Your task to perform on an android device: turn pop-ups off in chrome Image 0: 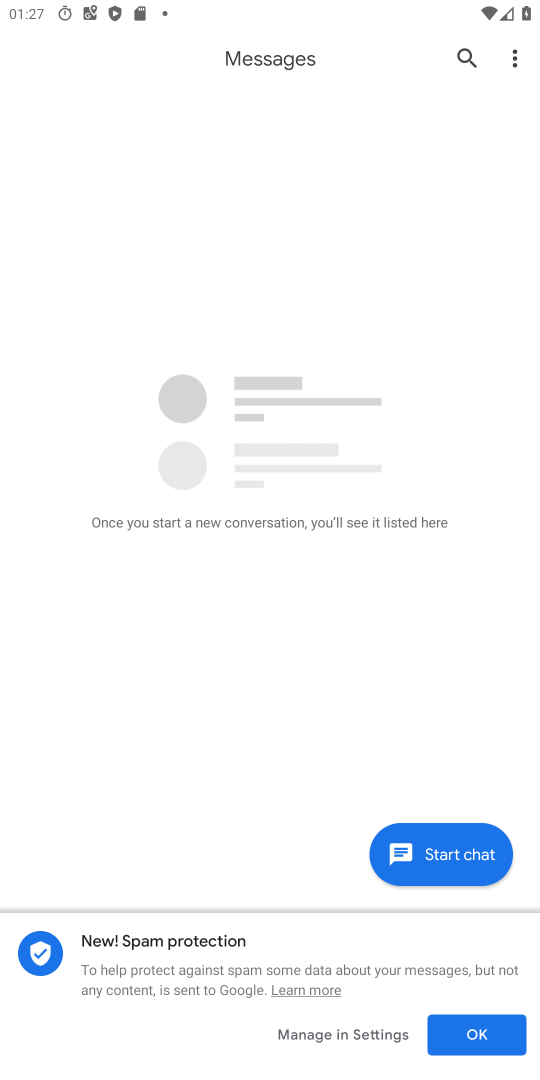
Step 0: press home button
Your task to perform on an android device: turn pop-ups off in chrome Image 1: 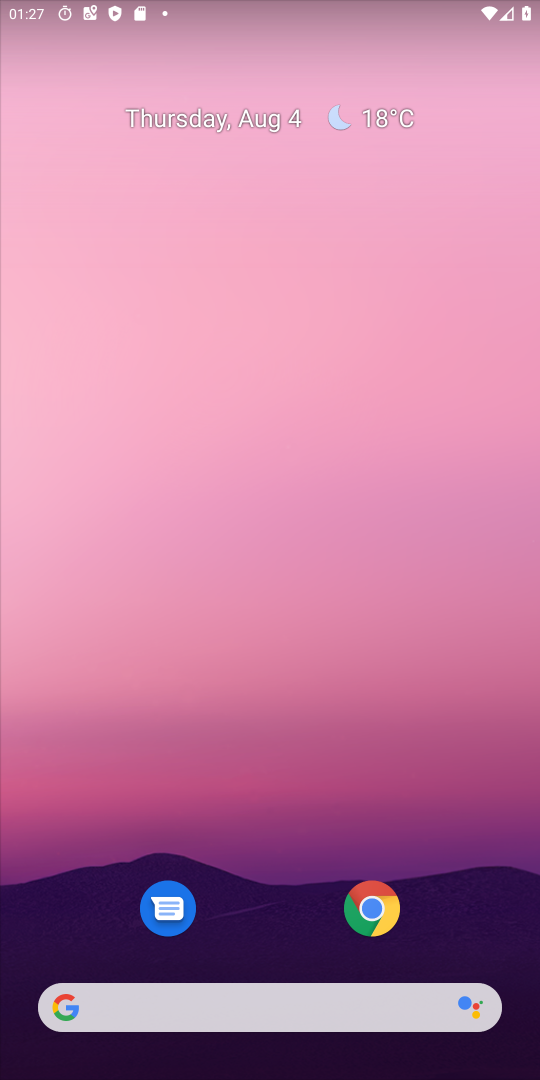
Step 1: drag from (348, 944) to (316, 111)
Your task to perform on an android device: turn pop-ups off in chrome Image 2: 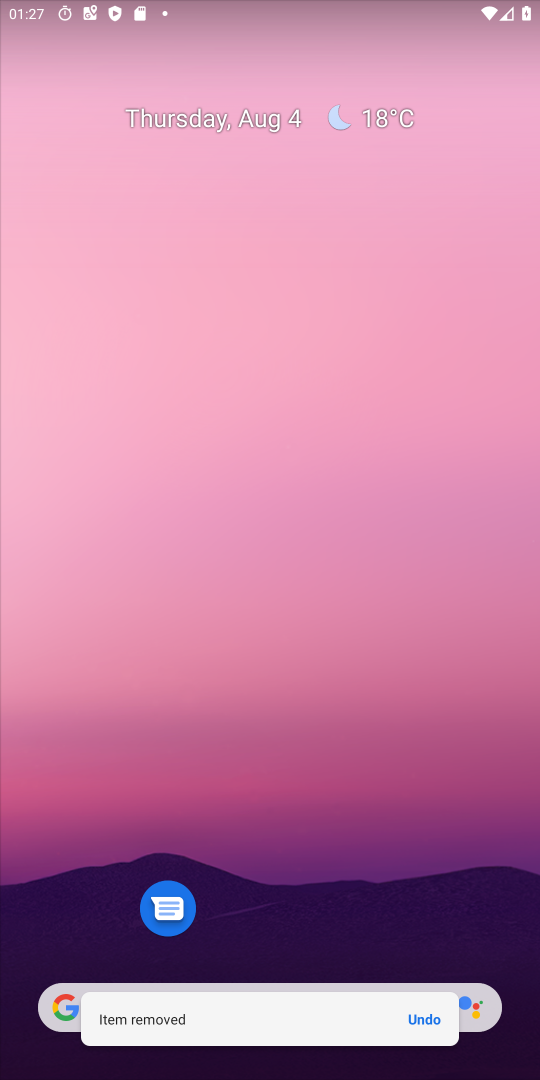
Step 2: click (425, 1019)
Your task to perform on an android device: turn pop-ups off in chrome Image 3: 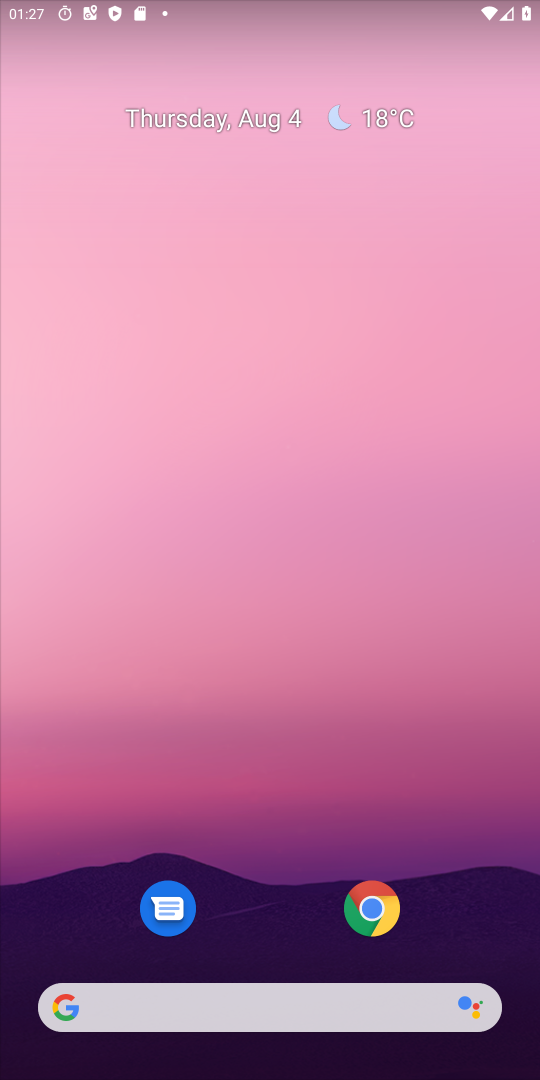
Step 3: click (252, 763)
Your task to perform on an android device: turn pop-ups off in chrome Image 4: 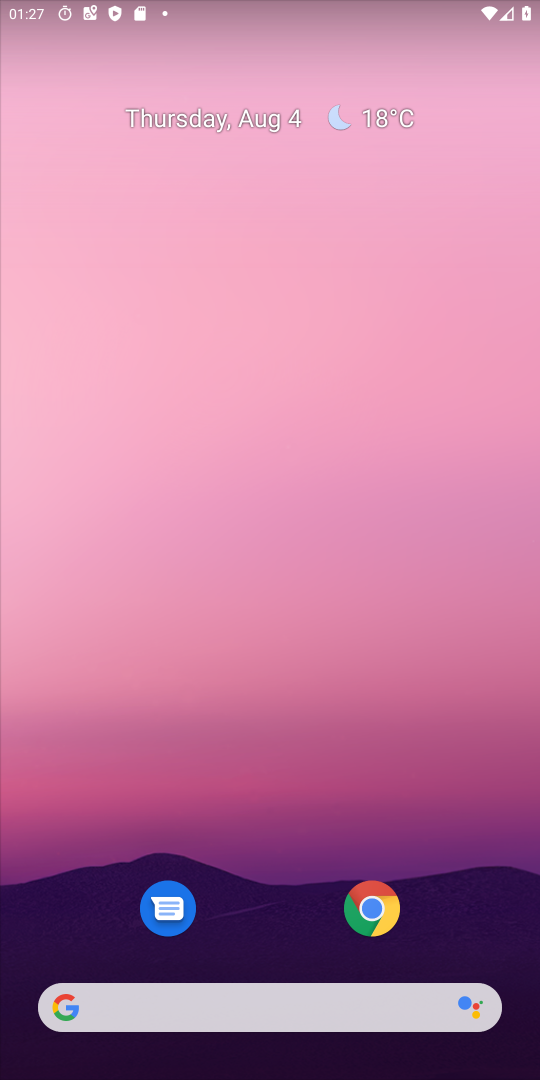
Step 4: drag from (246, 984) to (297, 202)
Your task to perform on an android device: turn pop-ups off in chrome Image 5: 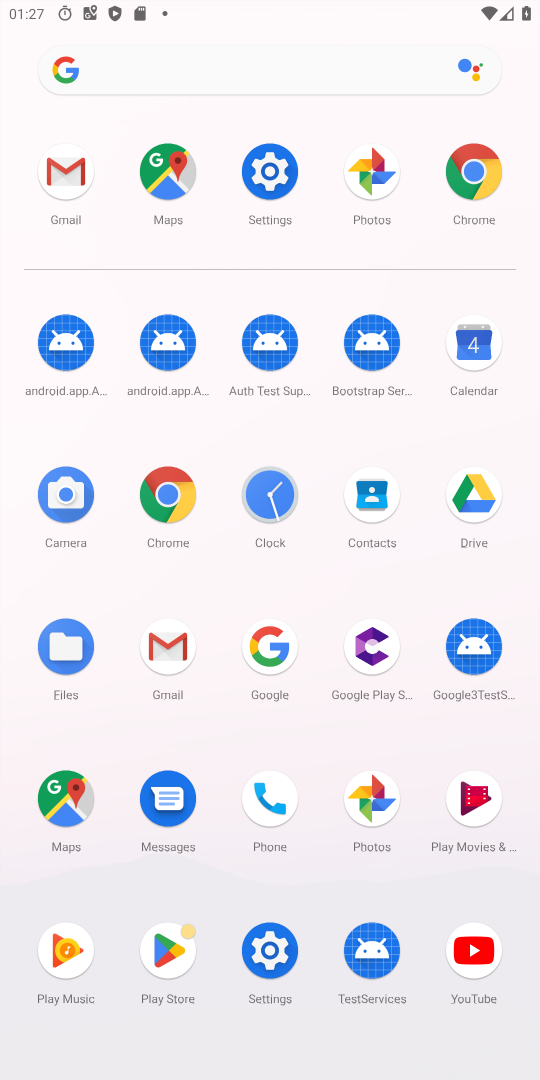
Step 5: click (458, 184)
Your task to perform on an android device: turn pop-ups off in chrome Image 6: 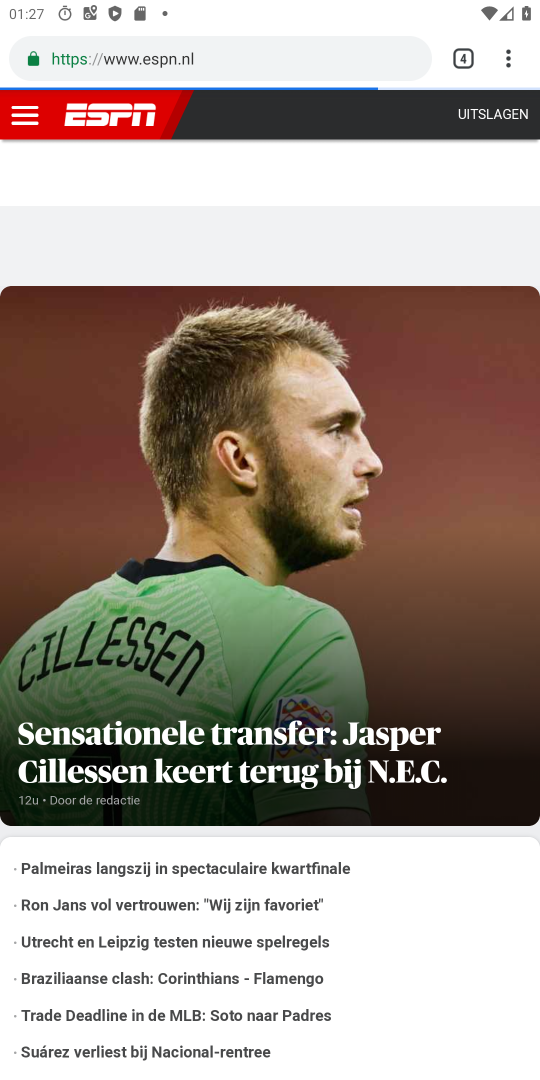
Step 6: click (508, 65)
Your task to perform on an android device: turn pop-ups off in chrome Image 7: 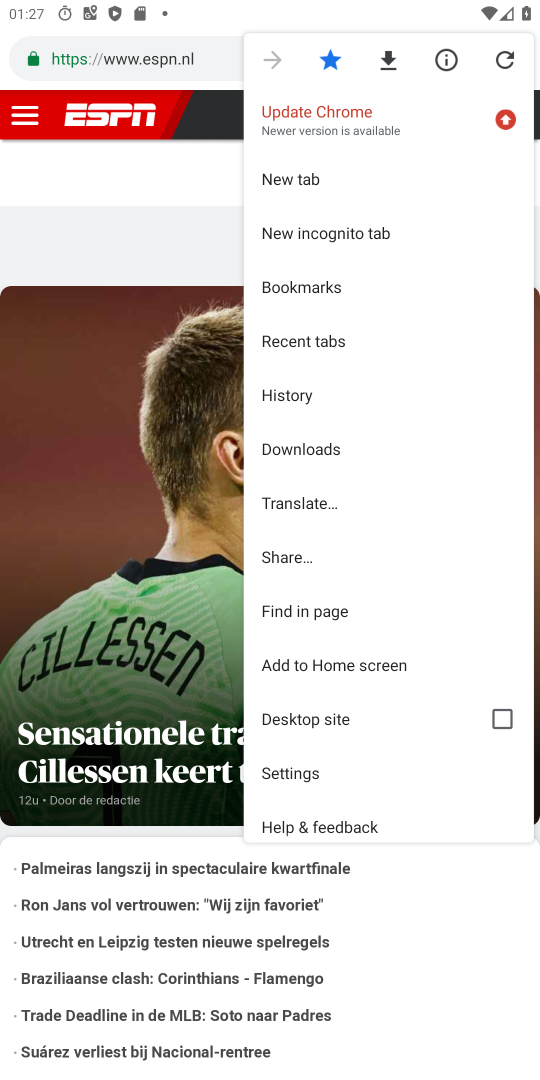
Step 7: click (280, 767)
Your task to perform on an android device: turn pop-ups off in chrome Image 8: 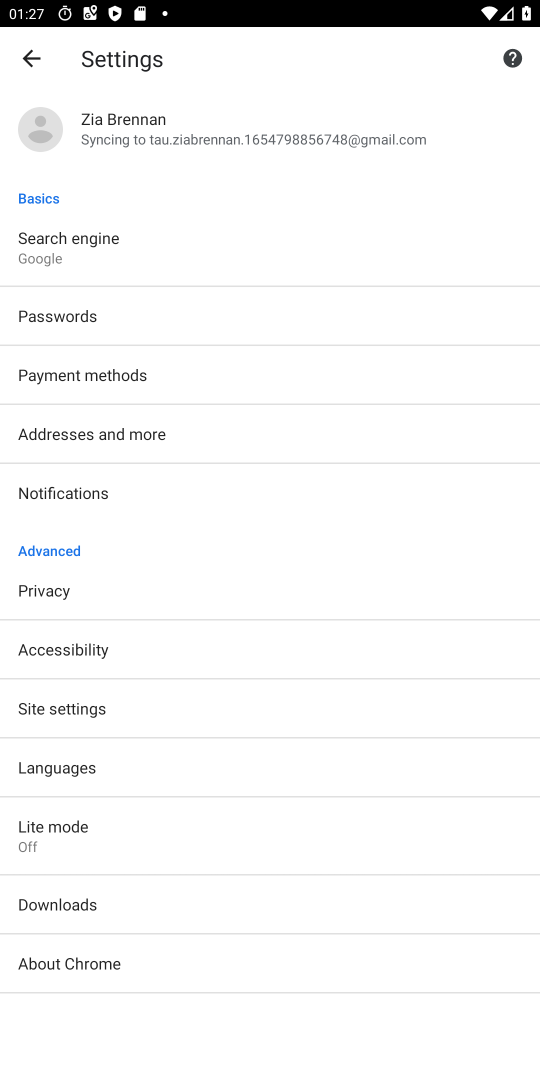
Step 8: click (93, 717)
Your task to perform on an android device: turn pop-ups off in chrome Image 9: 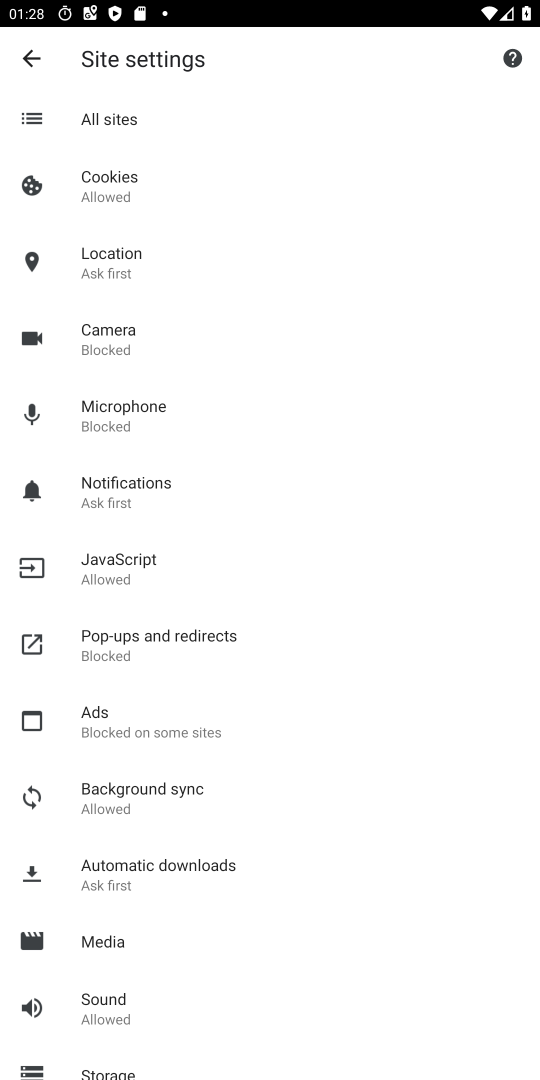
Step 9: click (149, 641)
Your task to perform on an android device: turn pop-ups off in chrome Image 10: 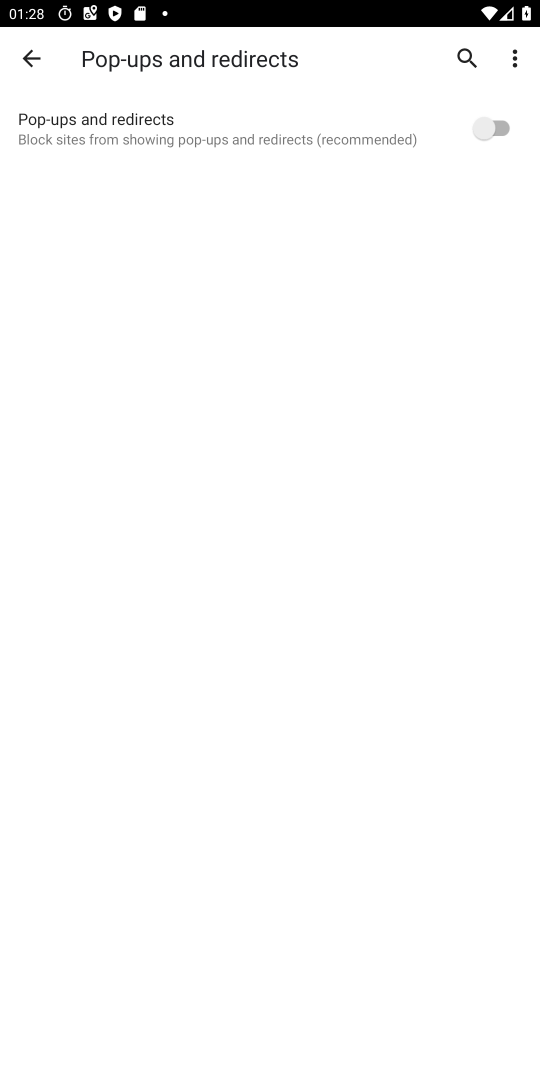
Step 10: click (473, 154)
Your task to perform on an android device: turn pop-ups off in chrome Image 11: 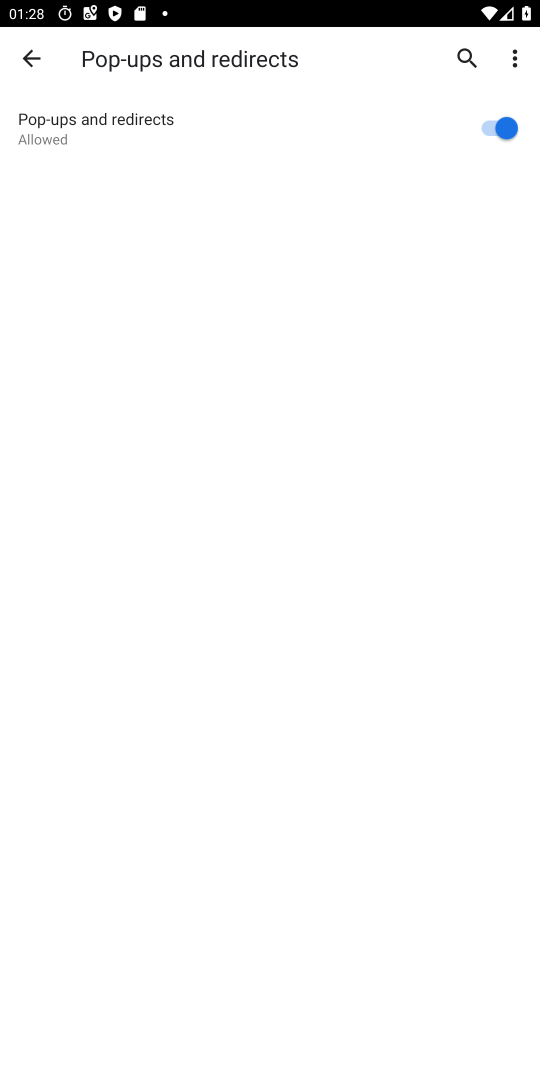
Step 11: click (482, 144)
Your task to perform on an android device: turn pop-ups off in chrome Image 12: 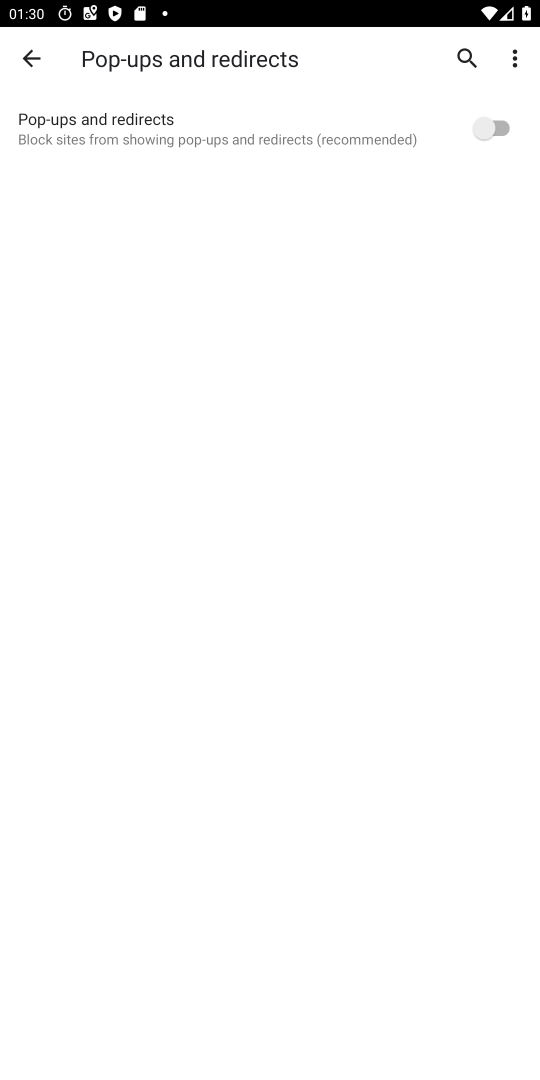
Step 12: task complete